Your task to perform on an android device: star an email in the gmail app Image 0: 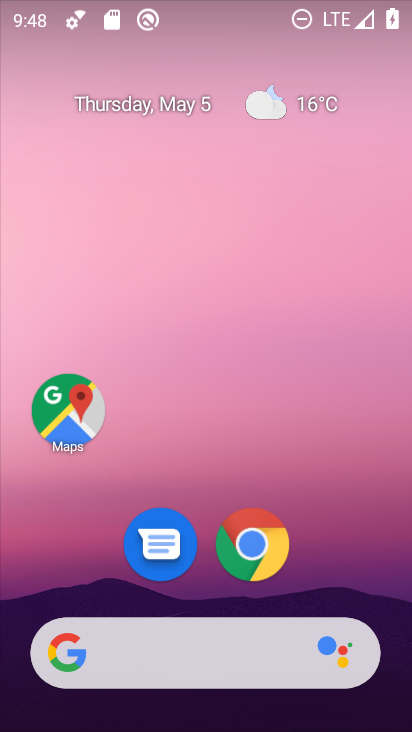
Step 0: drag from (408, 617) to (289, 56)
Your task to perform on an android device: star an email in the gmail app Image 1: 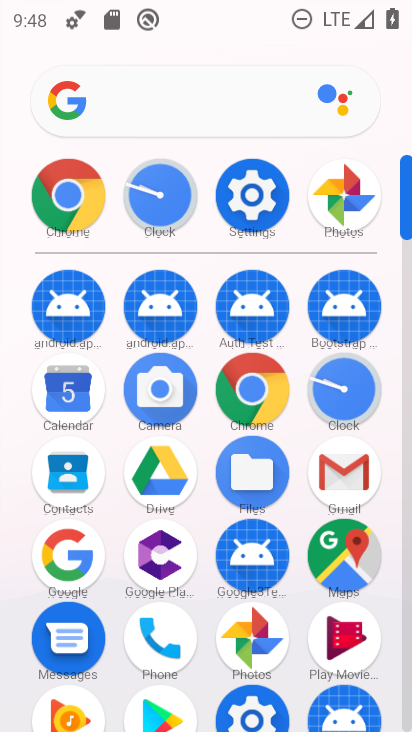
Step 1: click (353, 464)
Your task to perform on an android device: star an email in the gmail app Image 2: 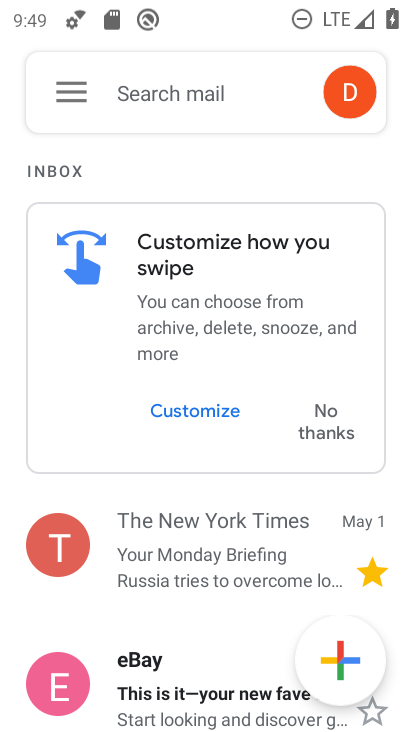
Step 2: drag from (153, 661) to (211, 296)
Your task to perform on an android device: star an email in the gmail app Image 3: 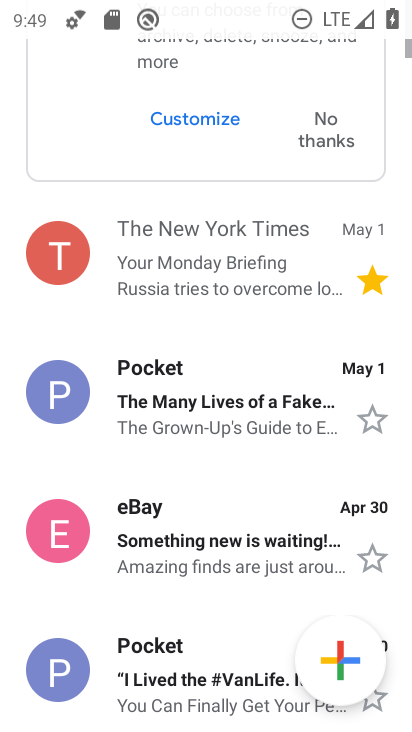
Step 3: click (364, 416)
Your task to perform on an android device: star an email in the gmail app Image 4: 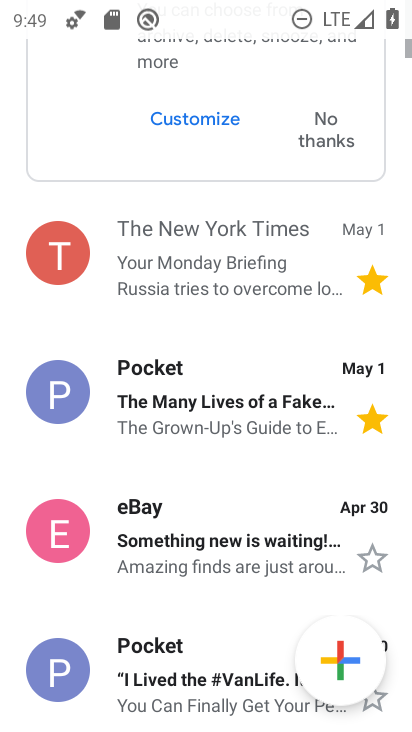
Step 4: task complete